Your task to perform on an android device: turn on airplane mode Image 0: 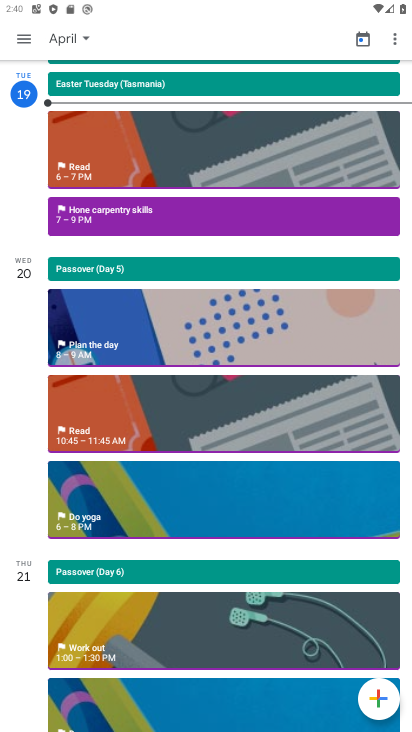
Step 0: press home button
Your task to perform on an android device: turn on airplane mode Image 1: 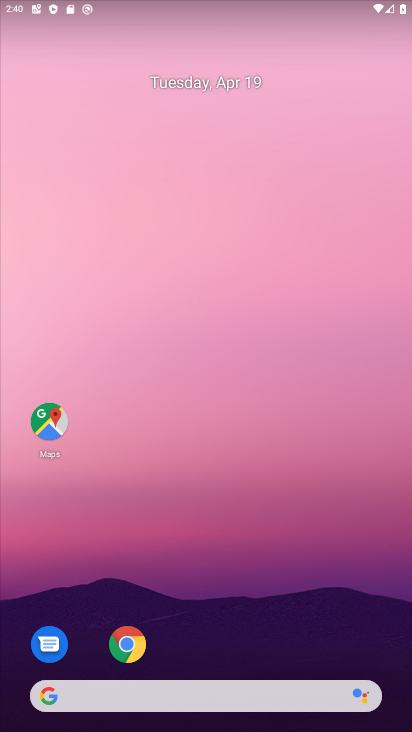
Step 1: drag from (281, 570) to (223, 137)
Your task to perform on an android device: turn on airplane mode Image 2: 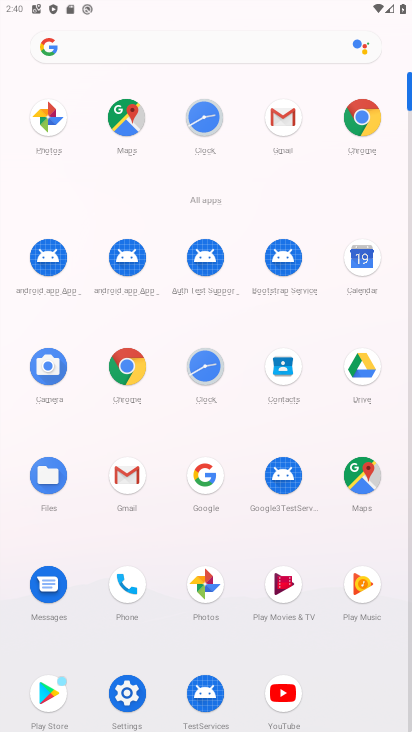
Step 2: click (121, 697)
Your task to perform on an android device: turn on airplane mode Image 3: 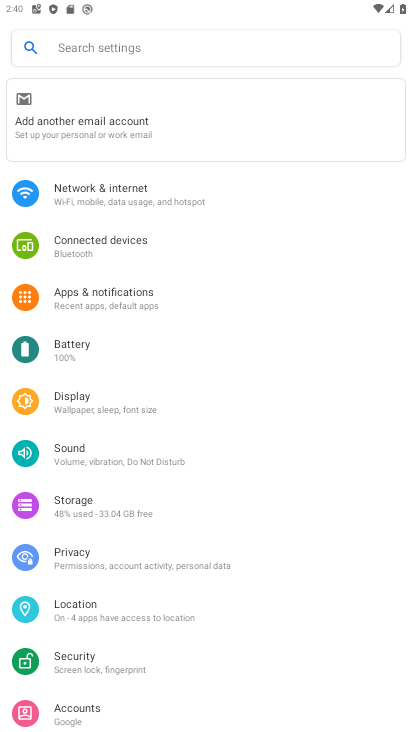
Step 3: click (114, 200)
Your task to perform on an android device: turn on airplane mode Image 4: 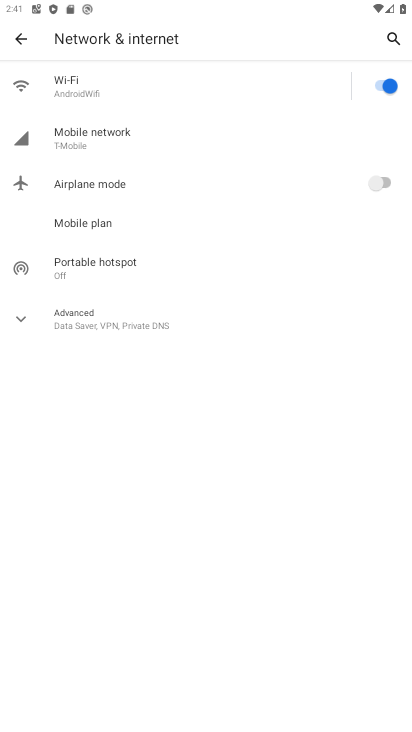
Step 4: click (377, 178)
Your task to perform on an android device: turn on airplane mode Image 5: 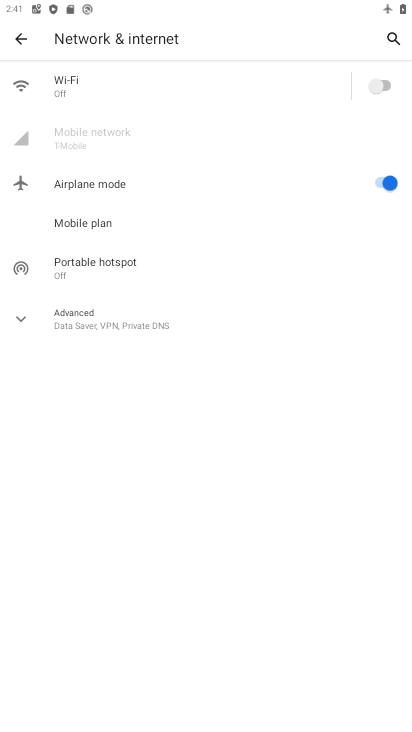
Step 5: task complete